Your task to perform on an android device: Open location settings Image 0: 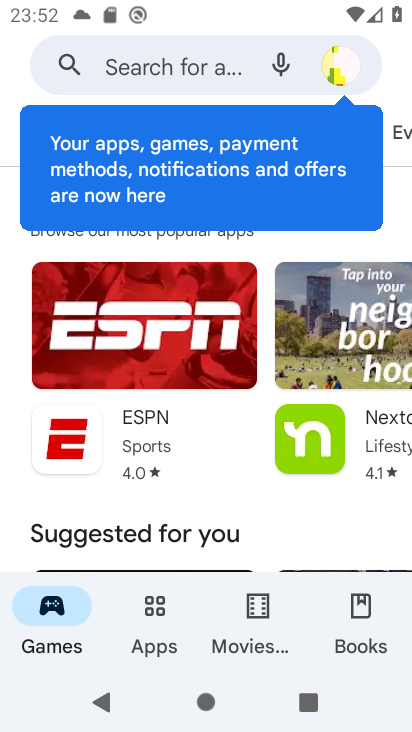
Step 0: press home button
Your task to perform on an android device: Open location settings Image 1: 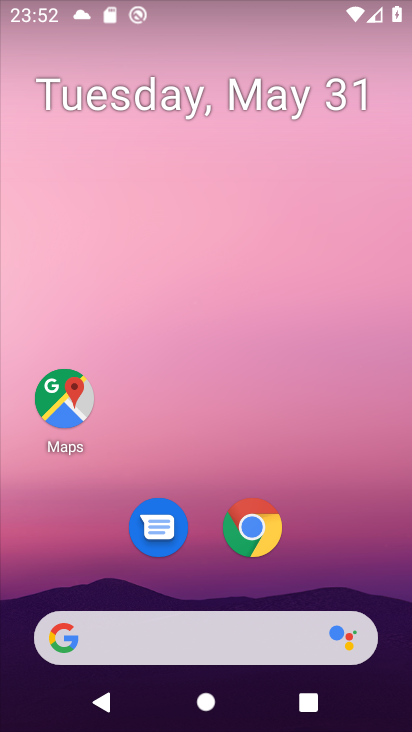
Step 1: drag from (356, 464) to (173, 56)
Your task to perform on an android device: Open location settings Image 2: 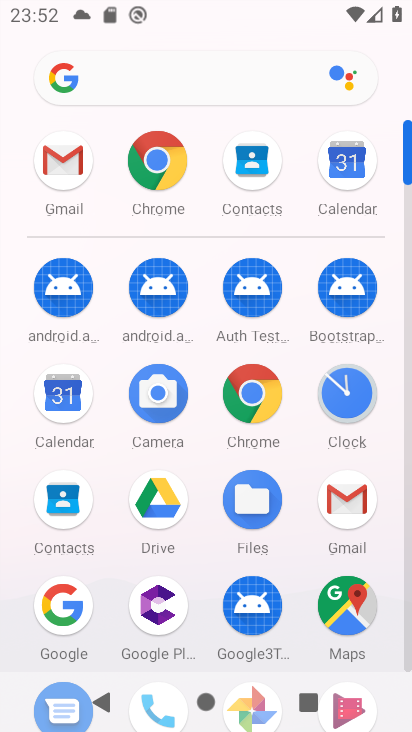
Step 2: drag from (194, 613) to (159, 208)
Your task to perform on an android device: Open location settings Image 3: 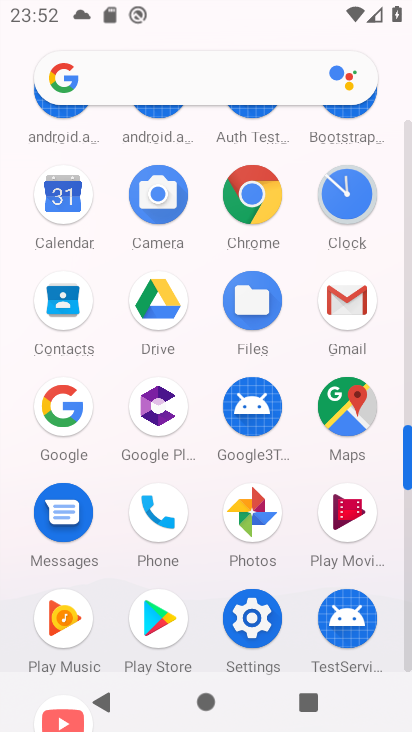
Step 3: click (241, 617)
Your task to perform on an android device: Open location settings Image 4: 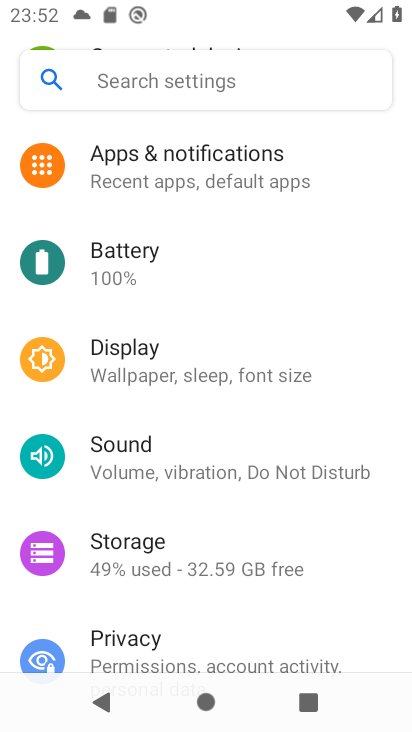
Step 4: drag from (211, 542) to (172, 100)
Your task to perform on an android device: Open location settings Image 5: 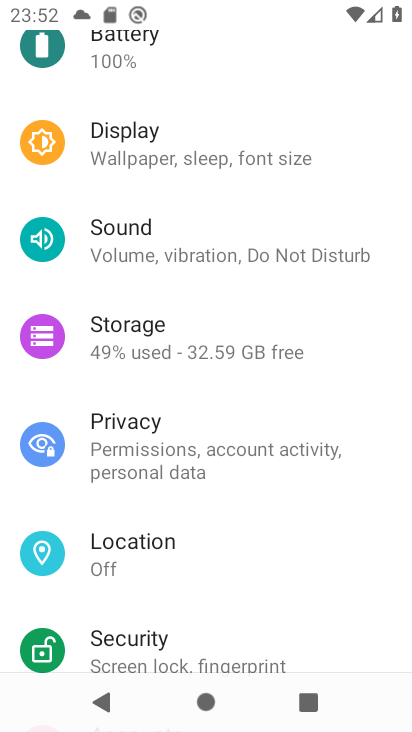
Step 5: click (171, 561)
Your task to perform on an android device: Open location settings Image 6: 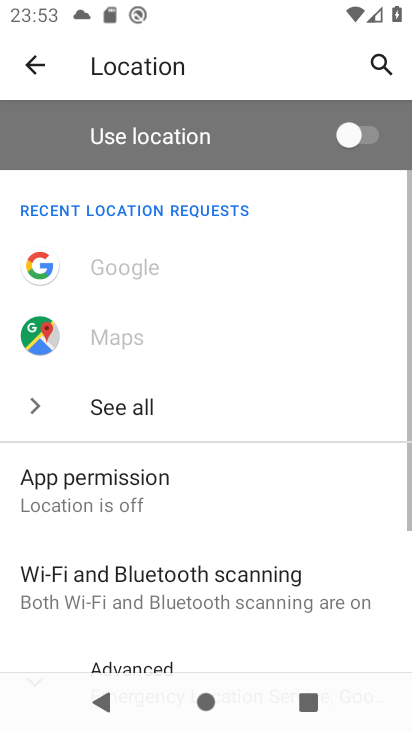
Step 6: task complete